Your task to perform on an android device: Go to settings Image 0: 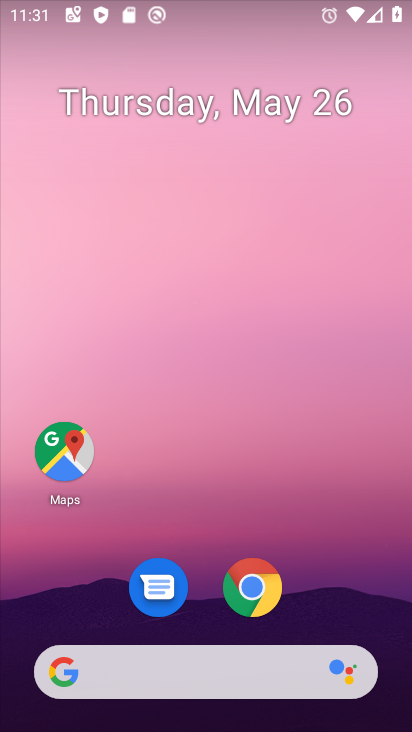
Step 0: drag from (227, 696) to (329, 144)
Your task to perform on an android device: Go to settings Image 1: 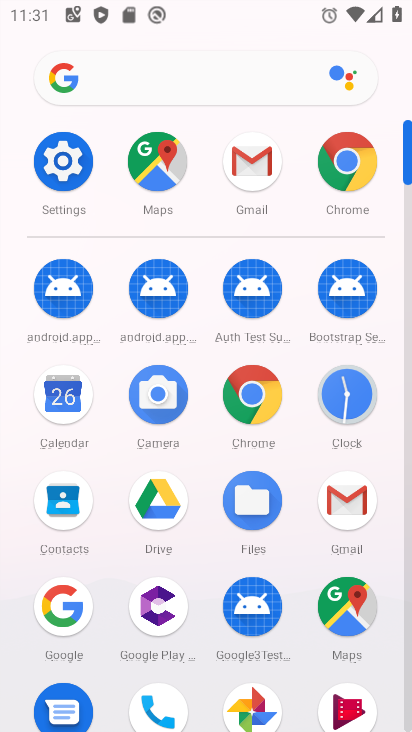
Step 1: click (77, 184)
Your task to perform on an android device: Go to settings Image 2: 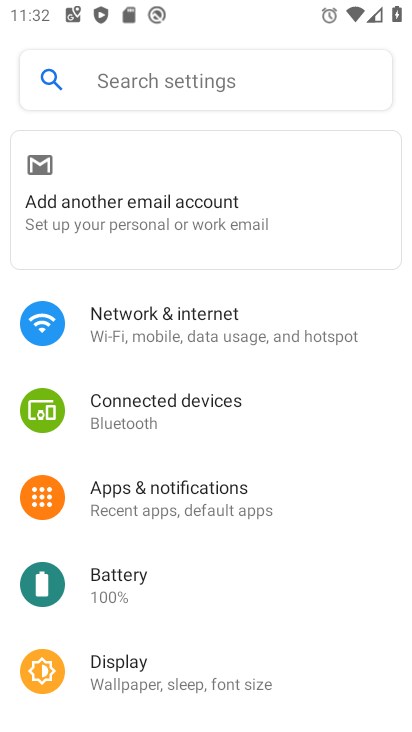
Step 2: task complete